Your task to perform on an android device: open app "Google Sheets" (install if not already installed) Image 0: 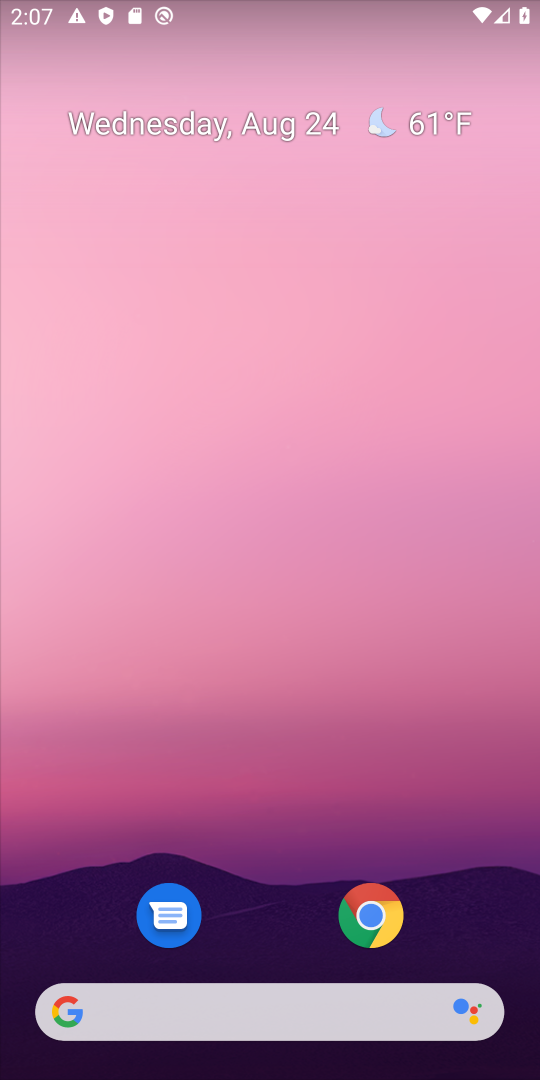
Step 0: drag from (278, 874) to (267, 239)
Your task to perform on an android device: open app "Google Sheets" (install if not already installed) Image 1: 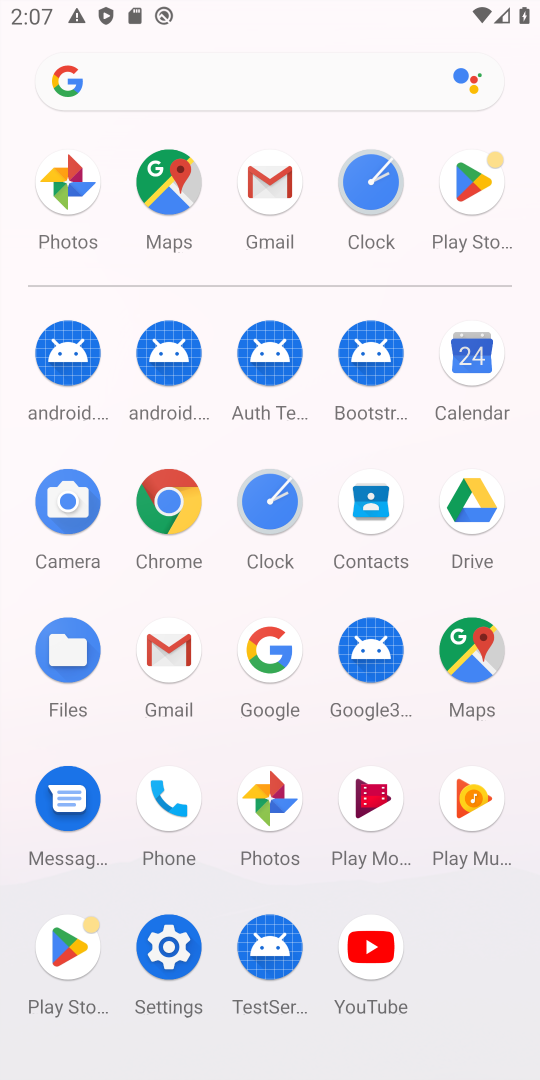
Step 1: click (474, 178)
Your task to perform on an android device: open app "Google Sheets" (install if not already installed) Image 2: 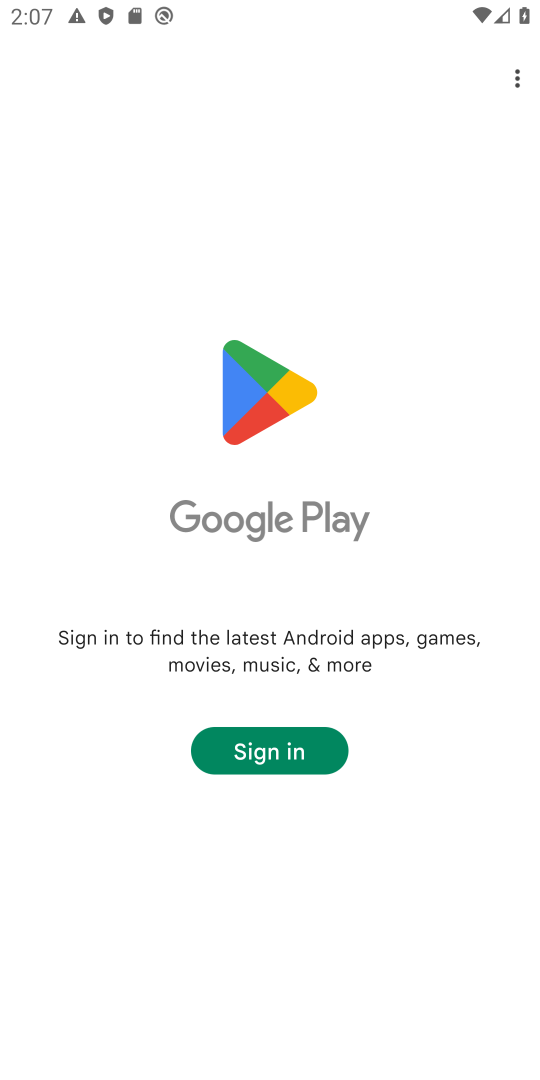
Step 2: task complete